Your task to perform on an android device: toggle location history Image 0: 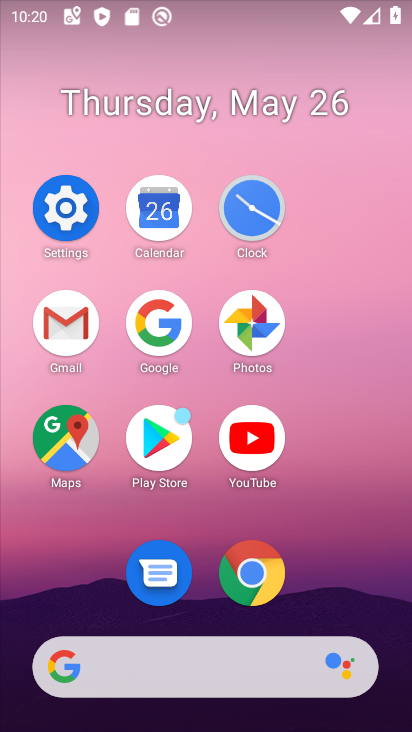
Step 0: click (94, 221)
Your task to perform on an android device: toggle location history Image 1: 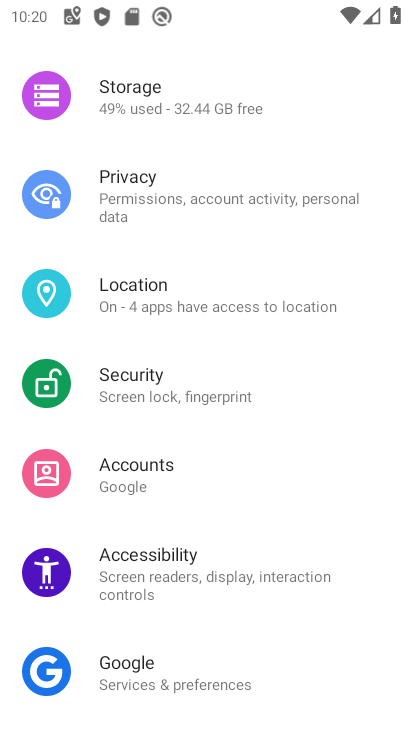
Step 1: click (253, 301)
Your task to perform on an android device: toggle location history Image 2: 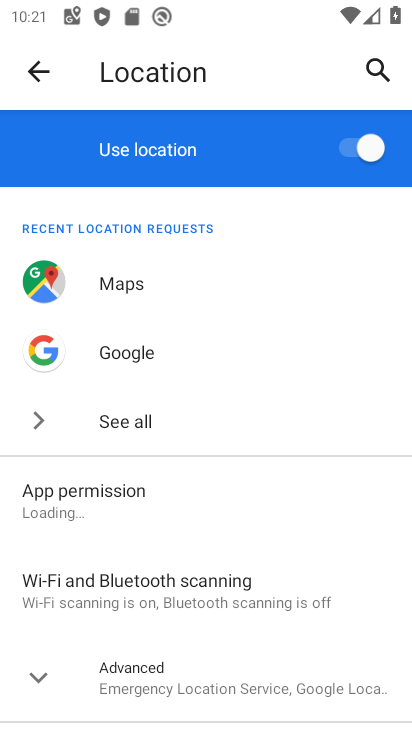
Step 2: click (261, 680)
Your task to perform on an android device: toggle location history Image 3: 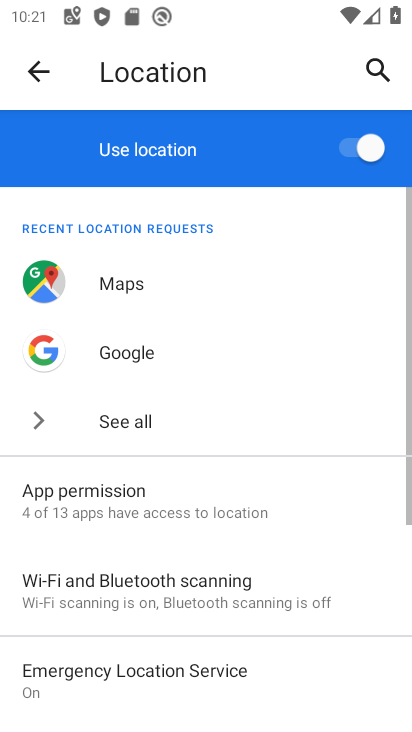
Step 3: drag from (261, 679) to (274, 243)
Your task to perform on an android device: toggle location history Image 4: 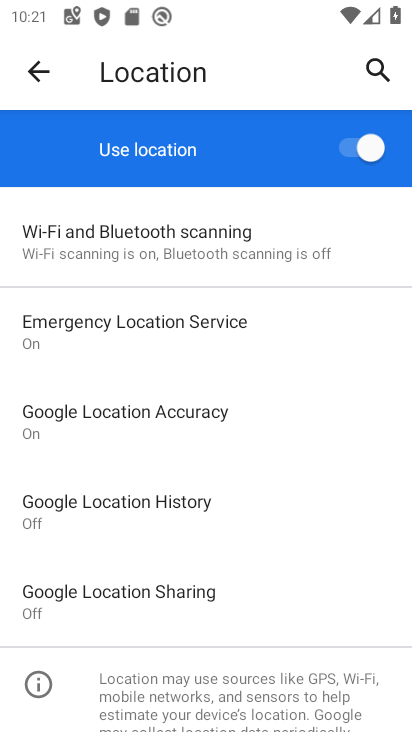
Step 4: click (263, 503)
Your task to perform on an android device: toggle location history Image 5: 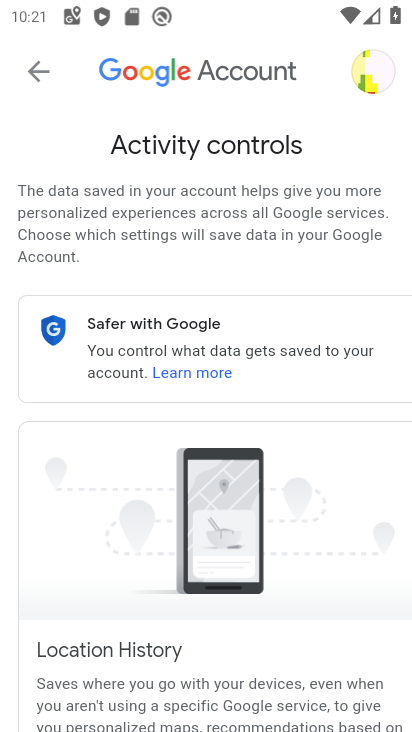
Step 5: drag from (345, 432) to (387, 24)
Your task to perform on an android device: toggle location history Image 6: 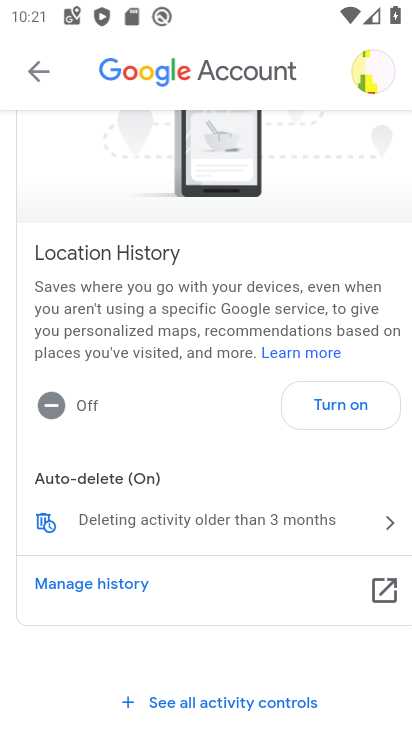
Step 6: click (346, 399)
Your task to perform on an android device: toggle location history Image 7: 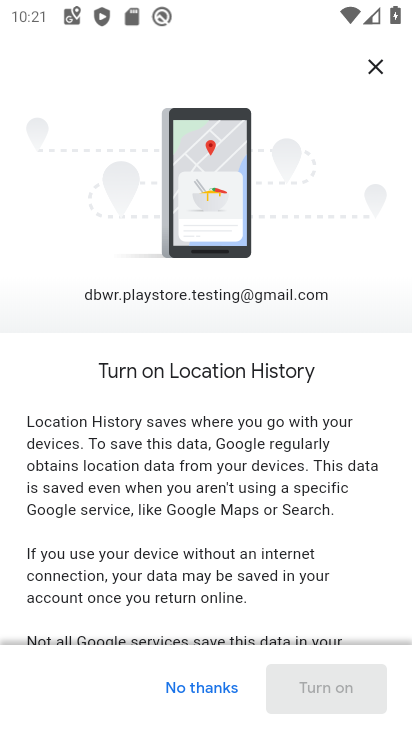
Step 7: drag from (379, 616) to (409, 120)
Your task to perform on an android device: toggle location history Image 8: 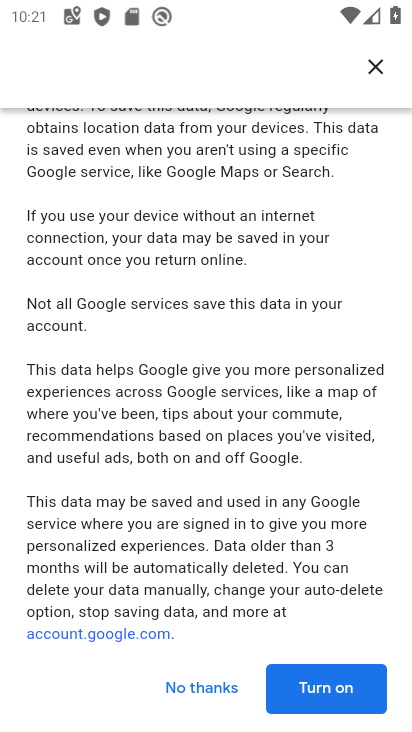
Step 8: drag from (301, 532) to (309, 65)
Your task to perform on an android device: toggle location history Image 9: 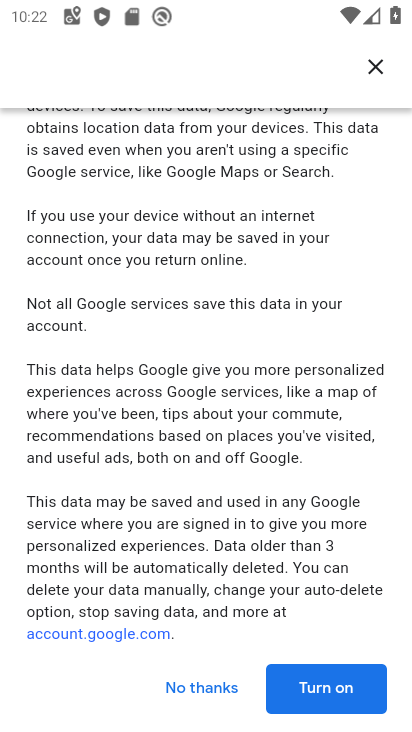
Step 9: click (345, 699)
Your task to perform on an android device: toggle location history Image 10: 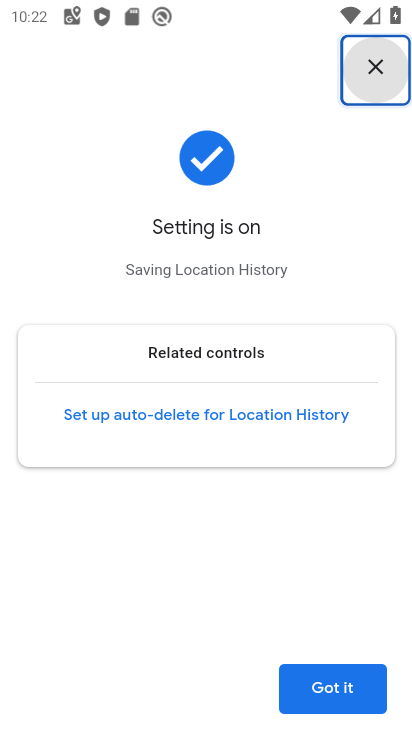
Step 10: click (295, 683)
Your task to perform on an android device: toggle location history Image 11: 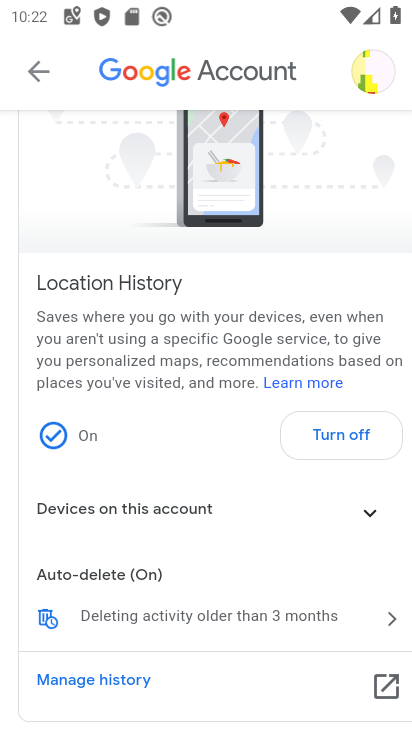
Step 11: task complete